Your task to perform on an android device: see tabs open on other devices in the chrome app Image 0: 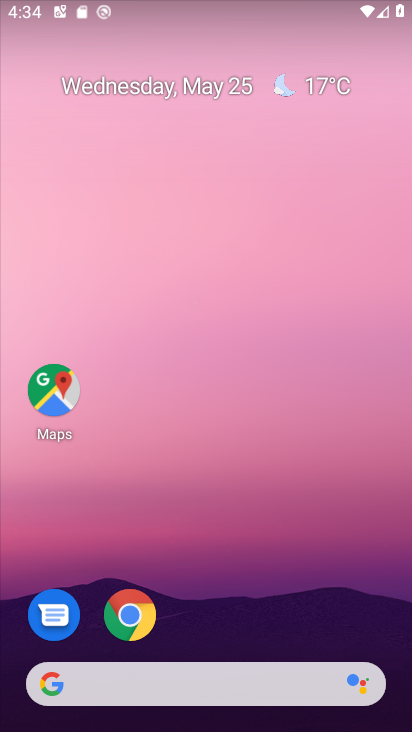
Step 0: click (127, 618)
Your task to perform on an android device: see tabs open on other devices in the chrome app Image 1: 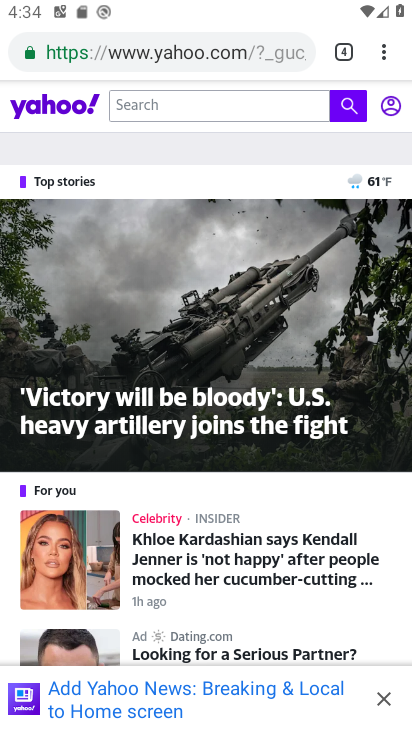
Step 1: click (383, 45)
Your task to perform on an android device: see tabs open on other devices in the chrome app Image 2: 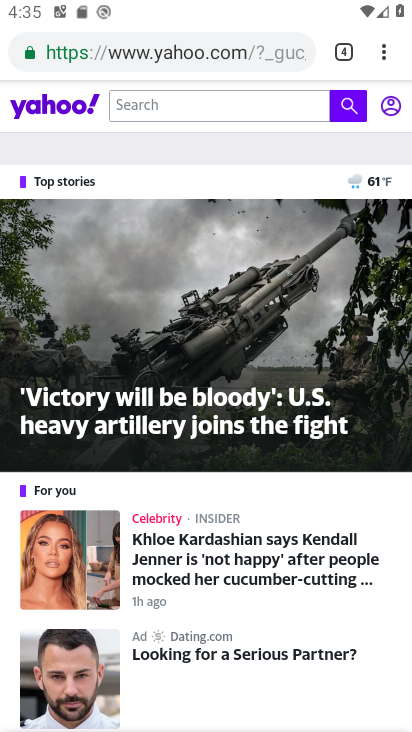
Step 2: click (382, 41)
Your task to perform on an android device: see tabs open on other devices in the chrome app Image 3: 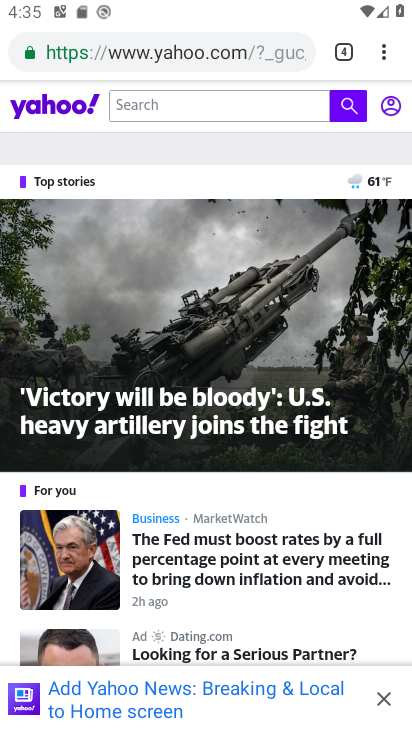
Step 3: click (384, 48)
Your task to perform on an android device: see tabs open on other devices in the chrome app Image 4: 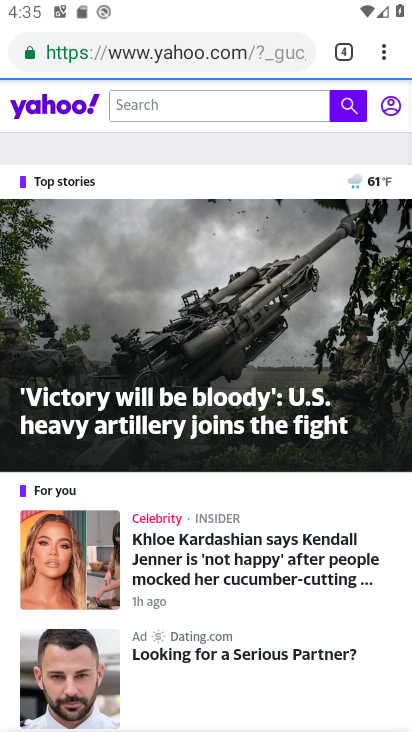
Step 4: click (377, 51)
Your task to perform on an android device: see tabs open on other devices in the chrome app Image 5: 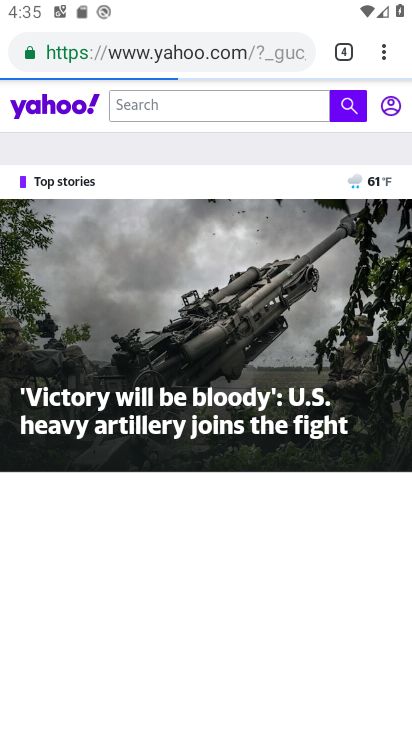
Step 5: click (378, 51)
Your task to perform on an android device: see tabs open on other devices in the chrome app Image 6: 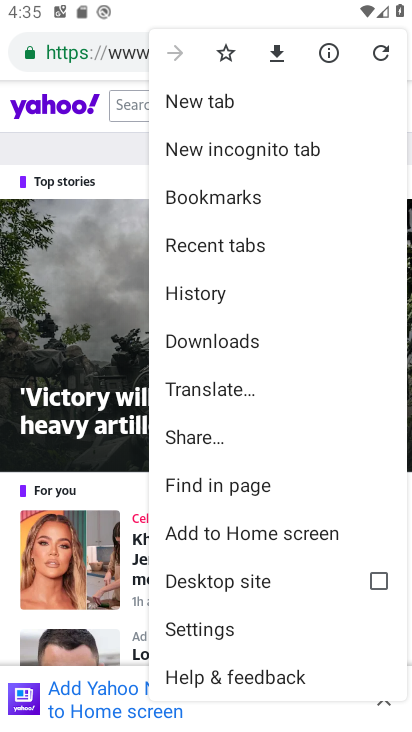
Step 6: click (232, 249)
Your task to perform on an android device: see tabs open on other devices in the chrome app Image 7: 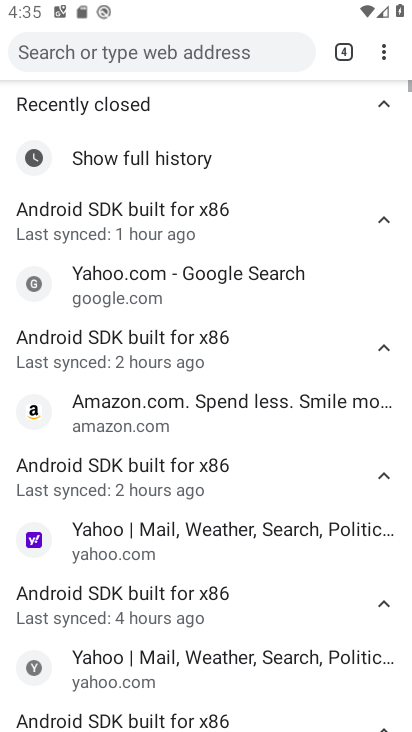
Step 7: task complete